Your task to perform on an android device: Do I have any events tomorrow? Image 0: 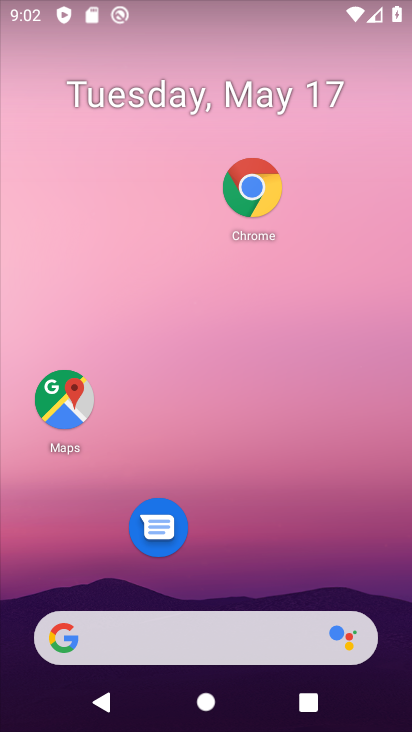
Step 0: click (359, 570)
Your task to perform on an android device: Do I have any events tomorrow? Image 1: 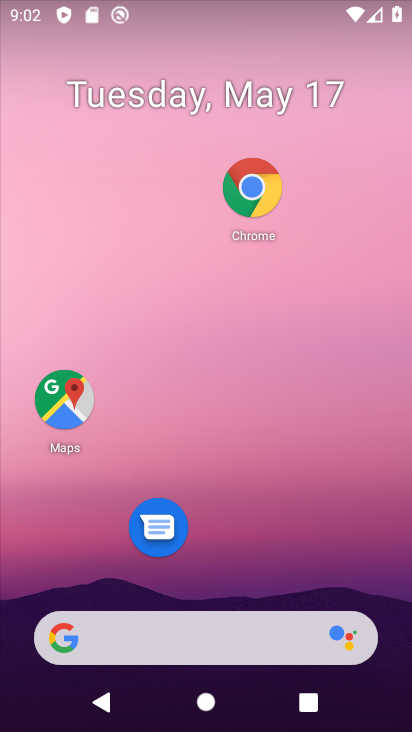
Step 1: drag from (359, 570) to (403, 175)
Your task to perform on an android device: Do I have any events tomorrow? Image 2: 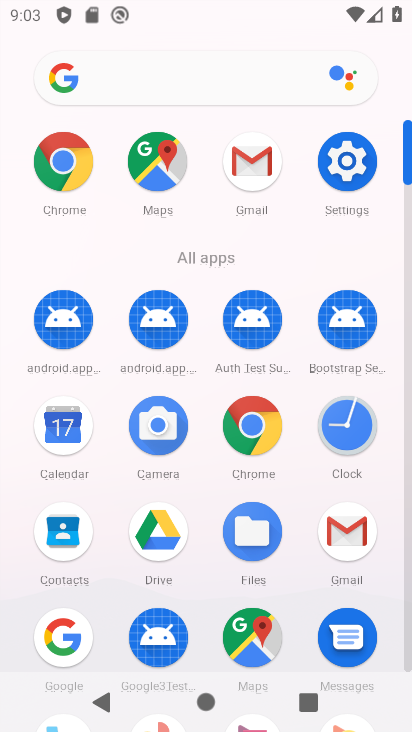
Step 2: click (61, 427)
Your task to perform on an android device: Do I have any events tomorrow? Image 3: 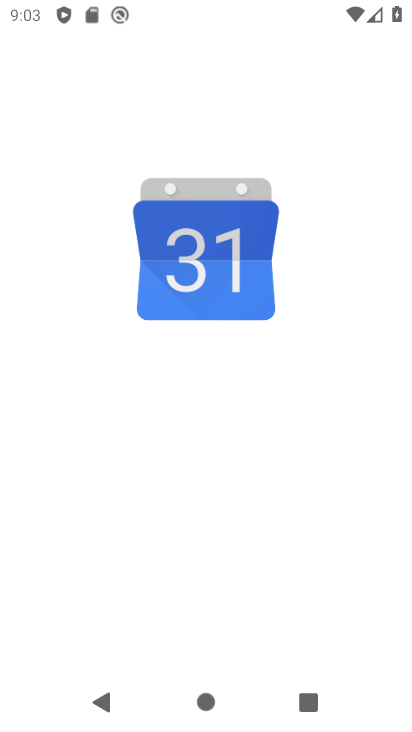
Step 3: task complete